Your task to perform on an android device: Open maps Image 0: 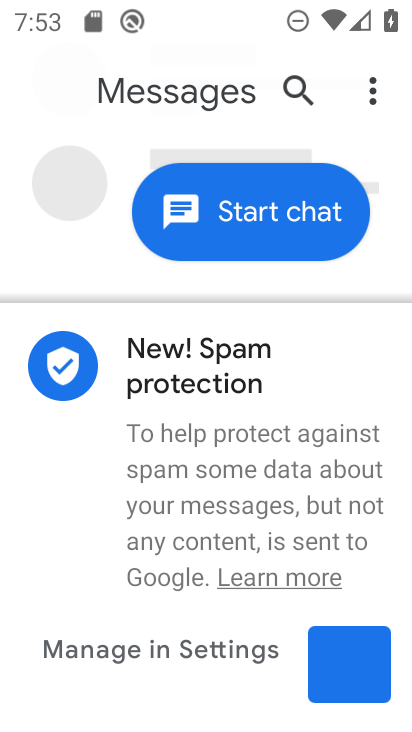
Step 0: press home button
Your task to perform on an android device: Open maps Image 1: 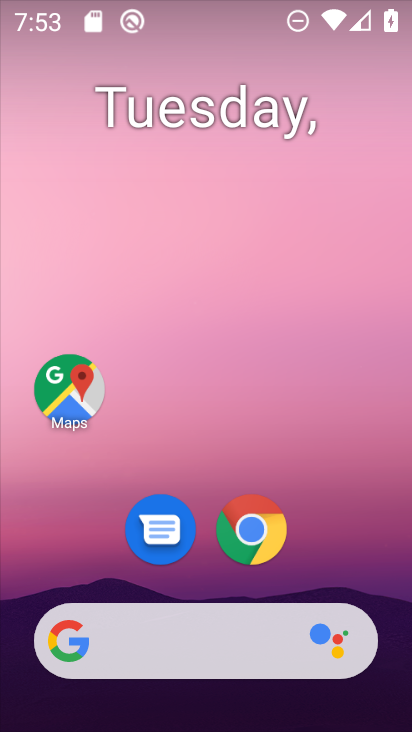
Step 1: drag from (162, 628) to (299, 52)
Your task to perform on an android device: Open maps Image 2: 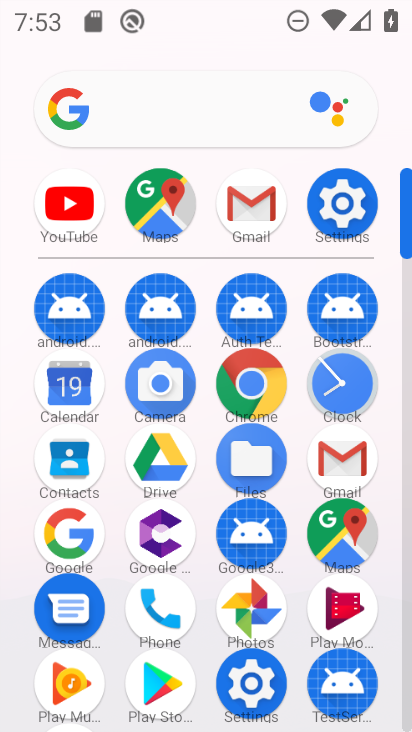
Step 2: click (341, 533)
Your task to perform on an android device: Open maps Image 3: 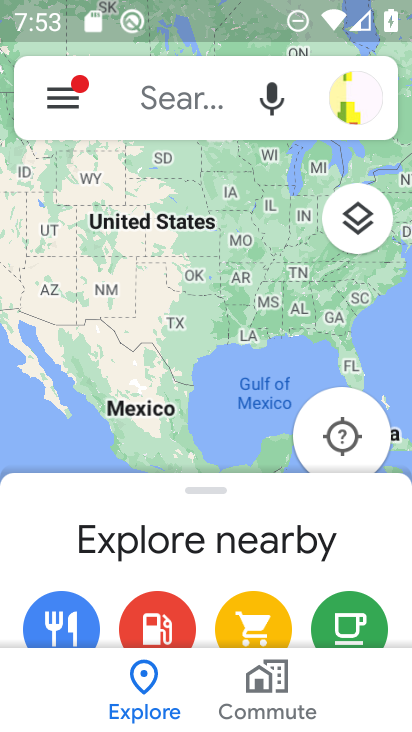
Step 3: task complete